Your task to perform on an android device: all mails in gmail Image 0: 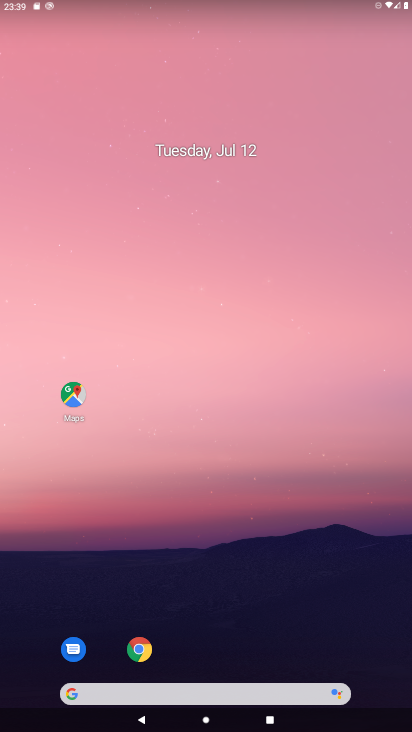
Step 0: drag from (366, 656) to (264, 203)
Your task to perform on an android device: all mails in gmail Image 1: 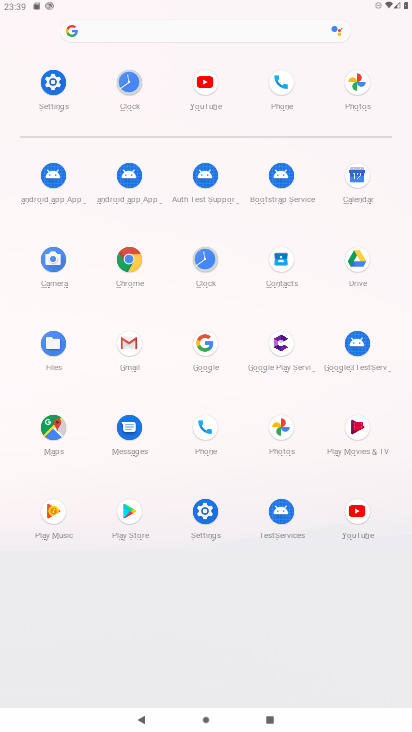
Step 1: click (124, 341)
Your task to perform on an android device: all mails in gmail Image 2: 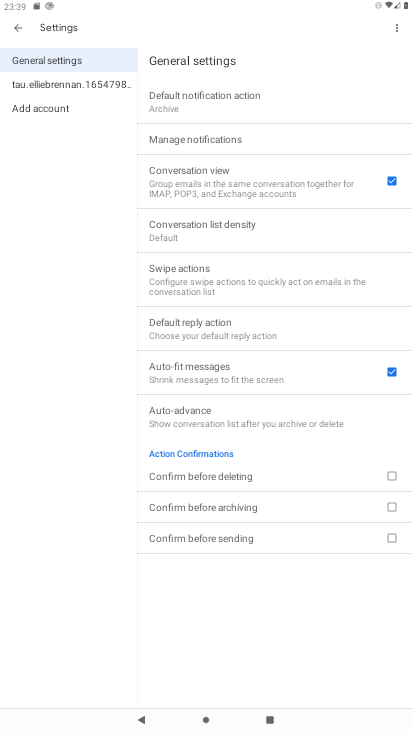
Step 2: press back button
Your task to perform on an android device: all mails in gmail Image 3: 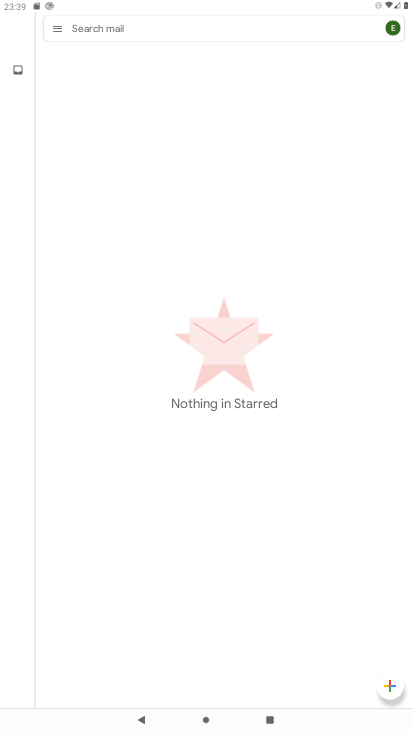
Step 3: click (59, 35)
Your task to perform on an android device: all mails in gmail Image 4: 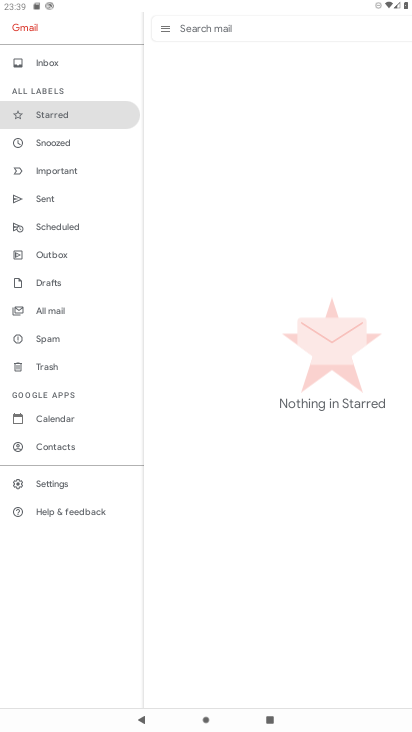
Step 4: click (40, 311)
Your task to perform on an android device: all mails in gmail Image 5: 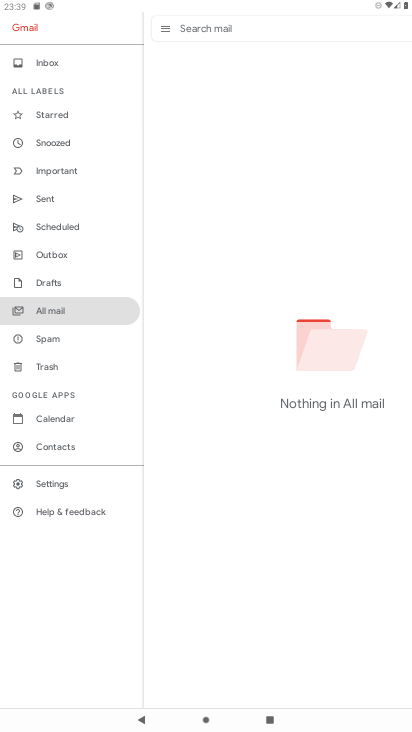
Step 5: task complete